Your task to perform on an android device: toggle sleep mode Image 0: 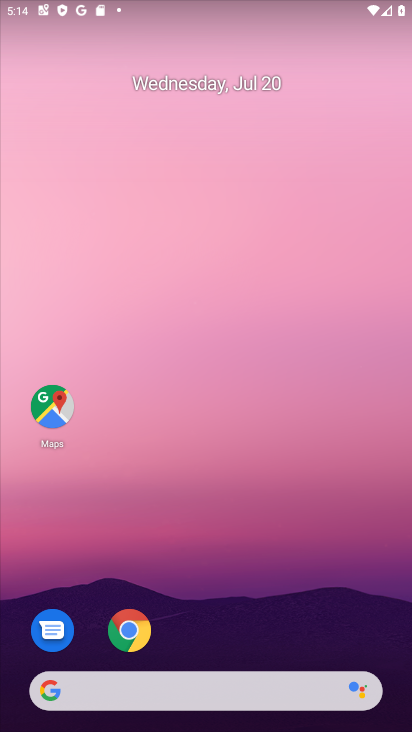
Step 0: drag from (234, 653) to (234, 131)
Your task to perform on an android device: toggle sleep mode Image 1: 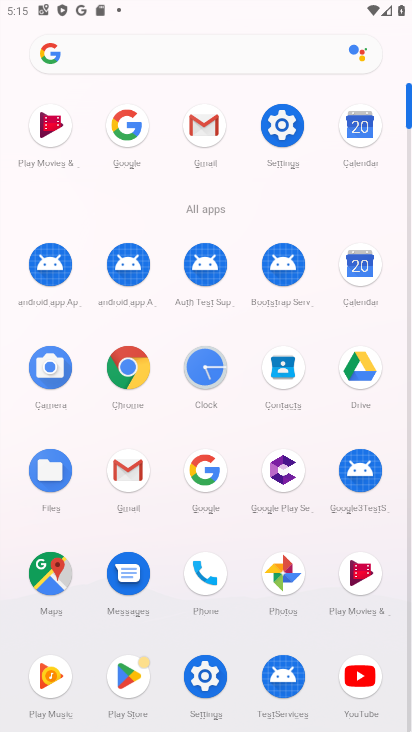
Step 1: click (286, 126)
Your task to perform on an android device: toggle sleep mode Image 2: 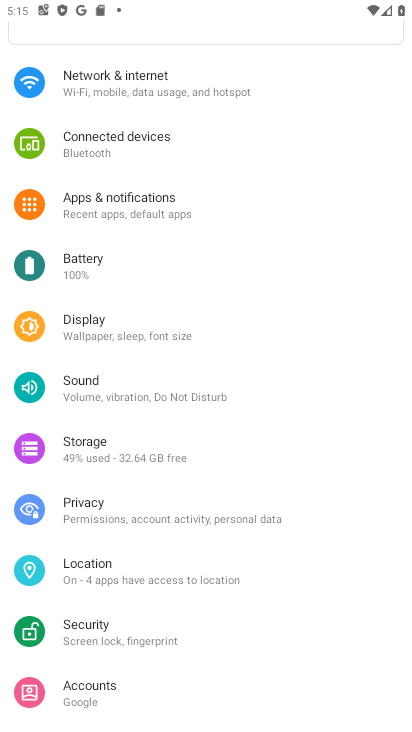
Step 2: click (103, 206)
Your task to perform on an android device: toggle sleep mode Image 3: 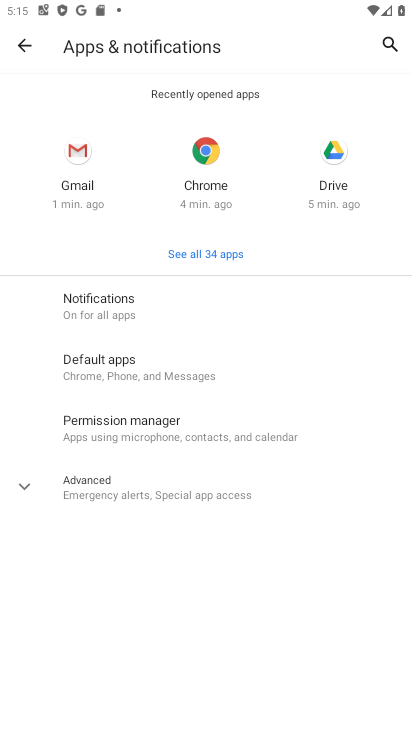
Step 3: click (134, 307)
Your task to perform on an android device: toggle sleep mode Image 4: 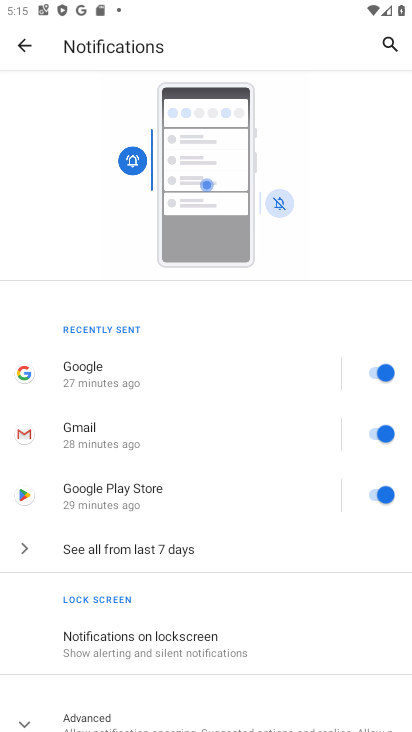
Step 4: drag from (120, 571) to (128, 348)
Your task to perform on an android device: toggle sleep mode Image 5: 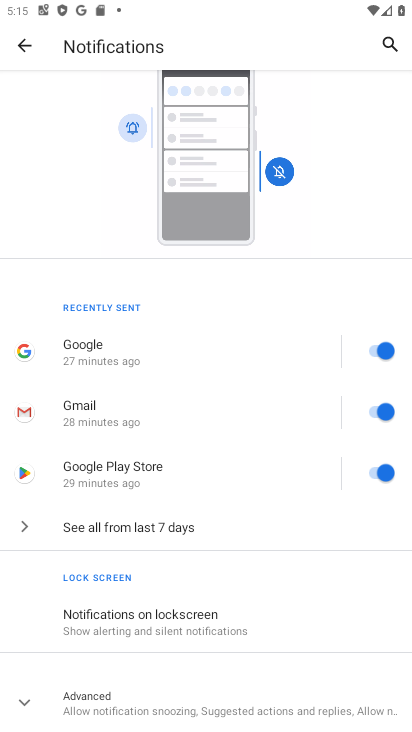
Step 5: click (108, 696)
Your task to perform on an android device: toggle sleep mode Image 6: 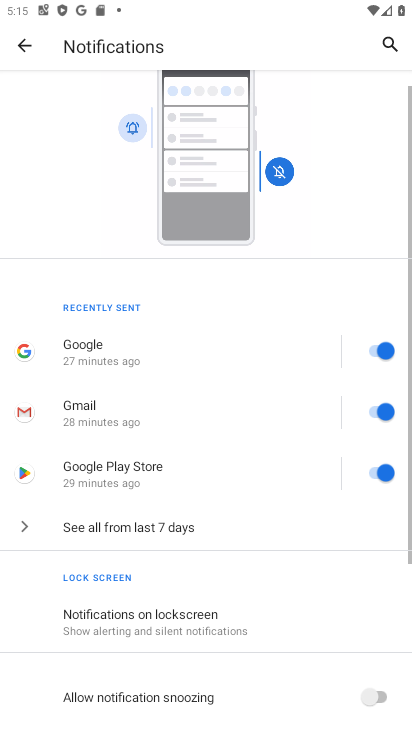
Step 6: click (108, 696)
Your task to perform on an android device: toggle sleep mode Image 7: 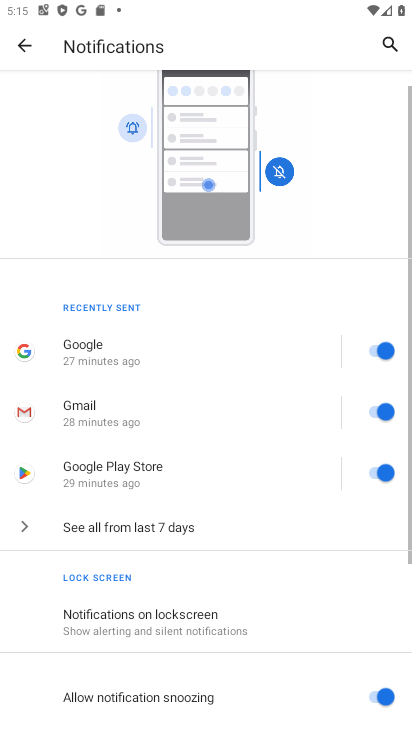
Step 7: click (108, 696)
Your task to perform on an android device: toggle sleep mode Image 8: 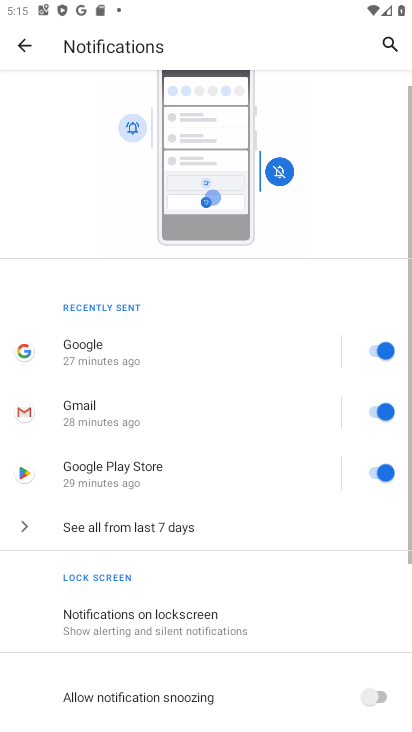
Step 8: drag from (139, 634) to (138, 431)
Your task to perform on an android device: toggle sleep mode Image 9: 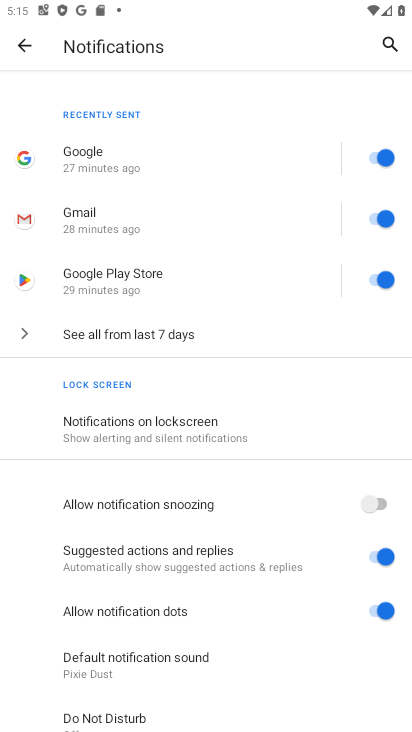
Step 9: click (145, 429)
Your task to perform on an android device: toggle sleep mode Image 10: 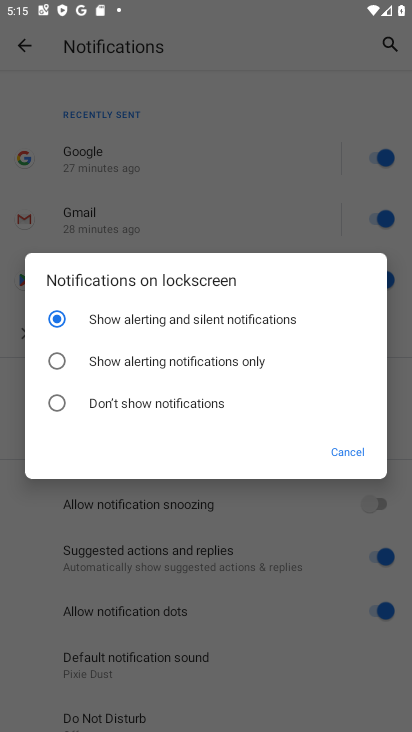
Step 10: click (53, 311)
Your task to perform on an android device: toggle sleep mode Image 11: 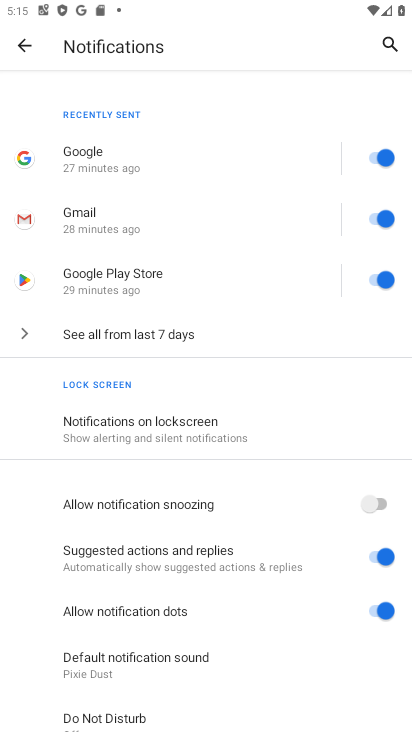
Step 11: task complete